Your task to perform on an android device: Open settings Image 0: 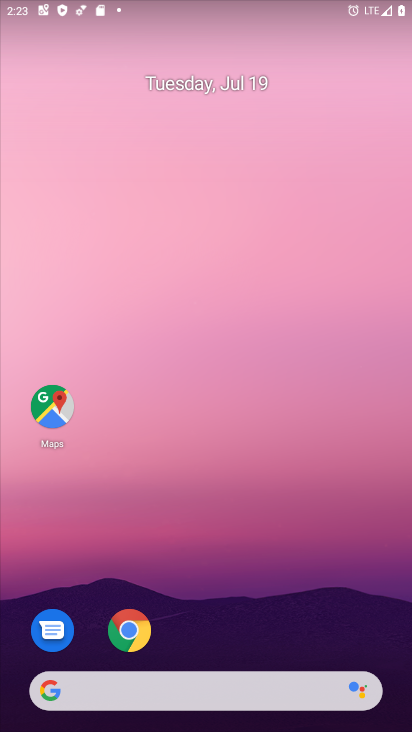
Step 0: press home button
Your task to perform on an android device: Open settings Image 1: 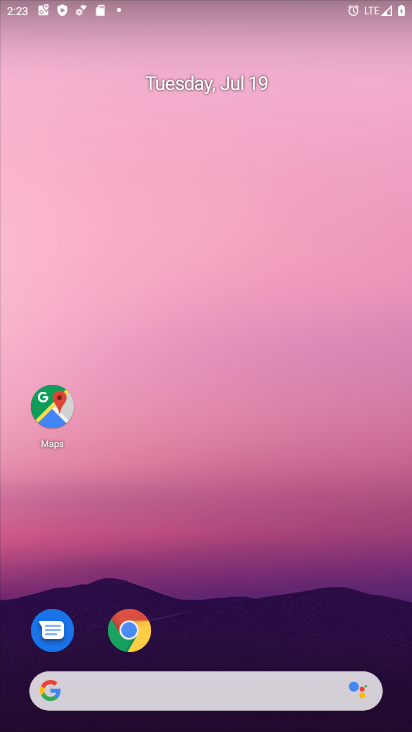
Step 1: drag from (214, 651) to (231, 68)
Your task to perform on an android device: Open settings Image 2: 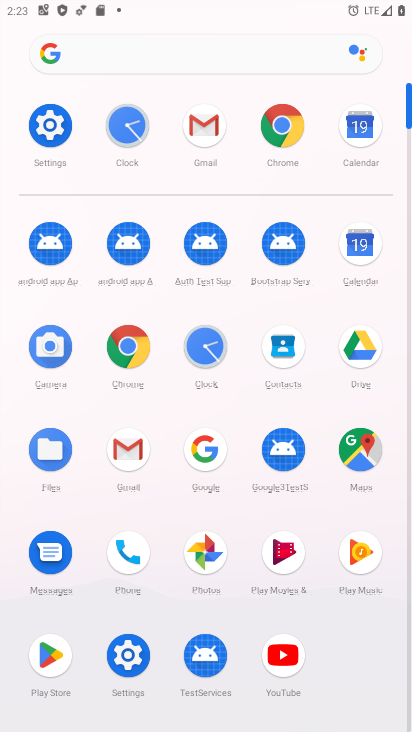
Step 2: click (46, 120)
Your task to perform on an android device: Open settings Image 3: 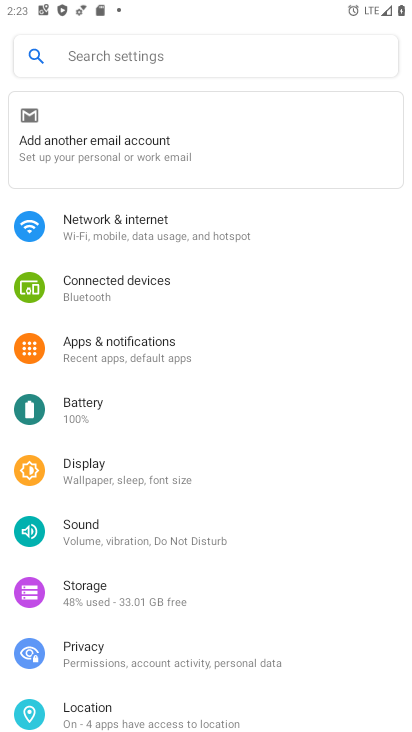
Step 3: task complete